Your task to perform on an android device: Check the news Image 0: 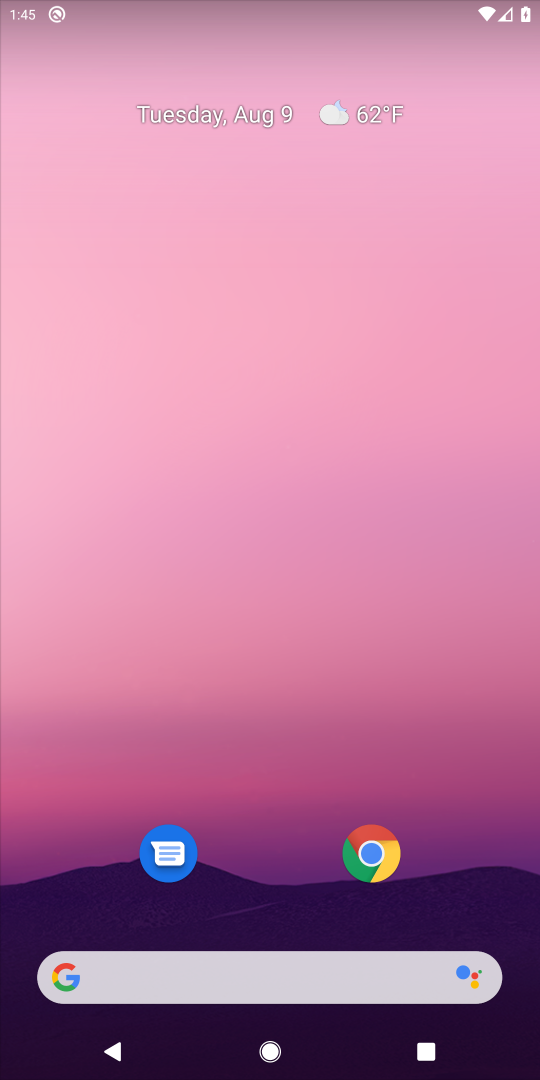
Step 0: press home button
Your task to perform on an android device: Check the news Image 1: 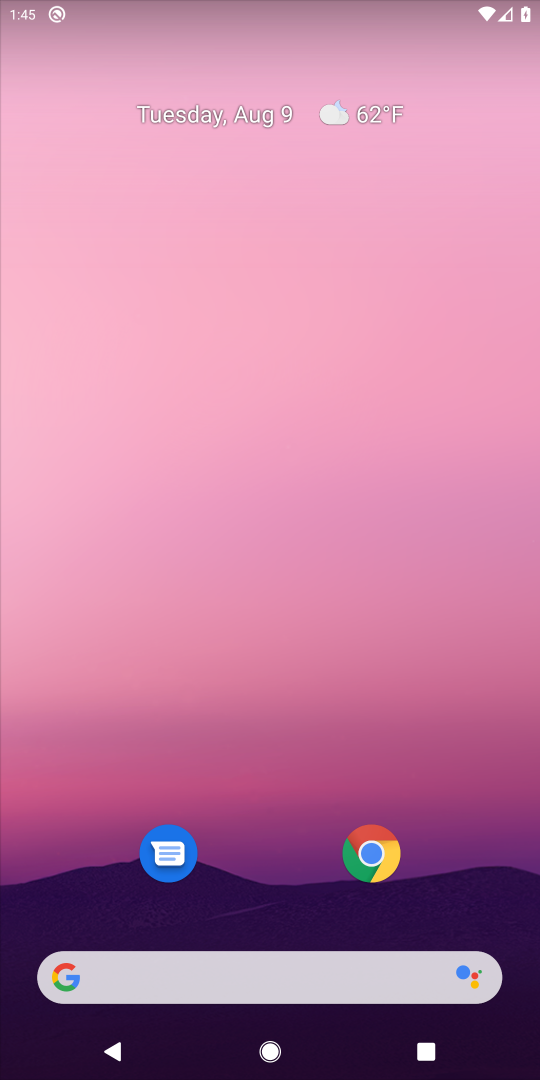
Step 1: click (61, 977)
Your task to perform on an android device: Check the news Image 2: 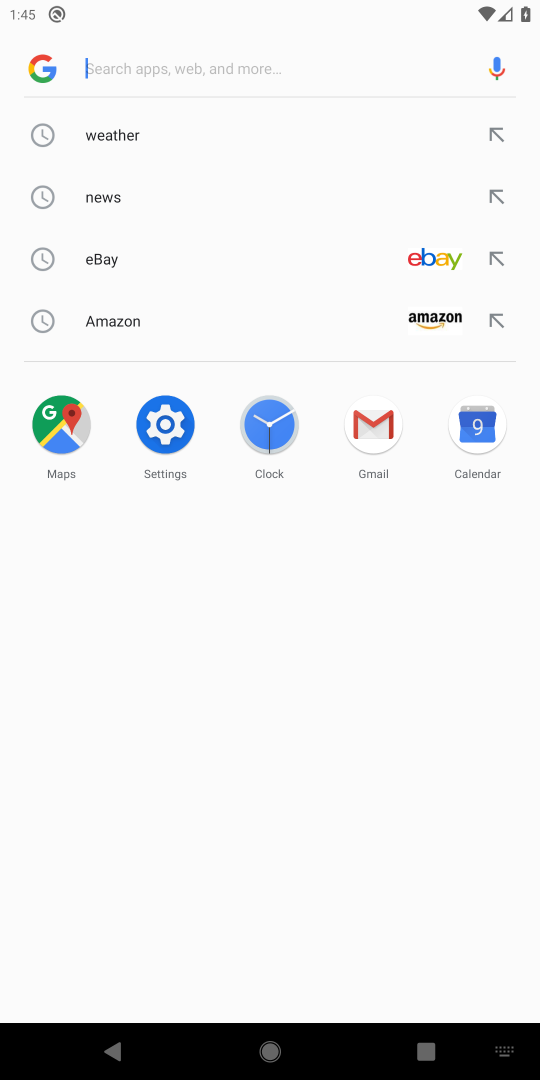
Step 2: click (106, 194)
Your task to perform on an android device: Check the news Image 3: 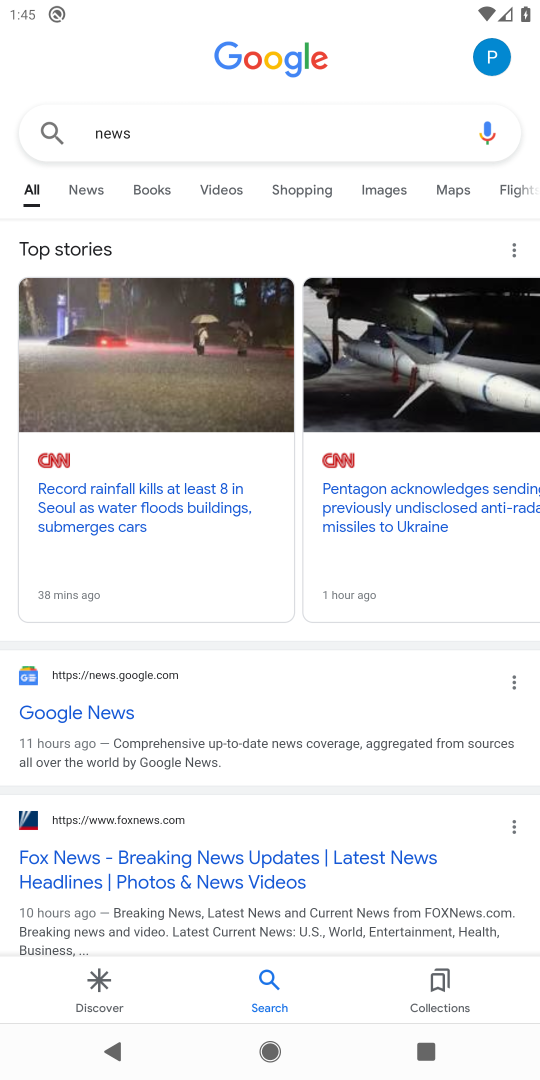
Step 3: task complete